Your task to perform on an android device: open app "Adobe Express: Graphic Design" (install if not already installed), go to login, and select forgot password Image 0: 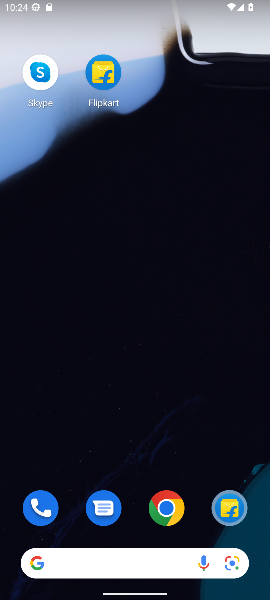
Step 0: drag from (151, 514) to (151, 174)
Your task to perform on an android device: open app "Adobe Express: Graphic Design" (install if not already installed), go to login, and select forgot password Image 1: 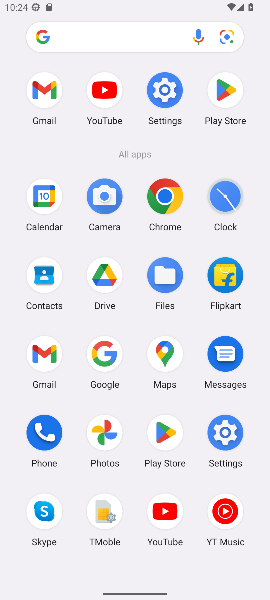
Step 1: click (166, 433)
Your task to perform on an android device: open app "Adobe Express: Graphic Design" (install if not already installed), go to login, and select forgot password Image 2: 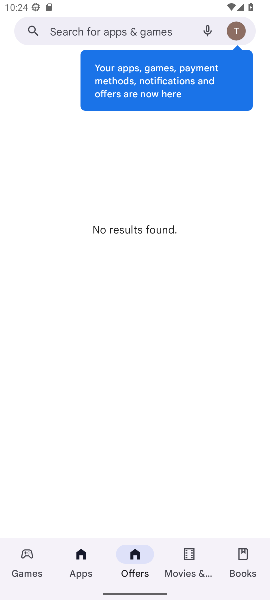
Step 2: click (108, 33)
Your task to perform on an android device: open app "Adobe Express: Graphic Design" (install if not already installed), go to login, and select forgot password Image 3: 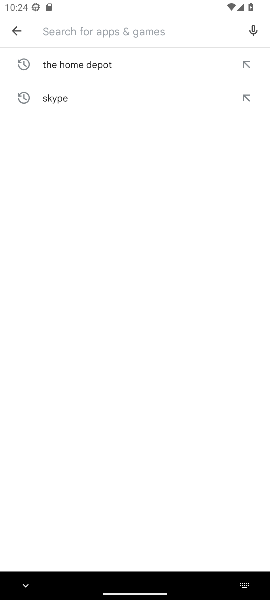
Step 3: type "Adobe Express: Graphic Design"
Your task to perform on an android device: open app "Adobe Express: Graphic Design" (install if not already installed), go to login, and select forgot password Image 4: 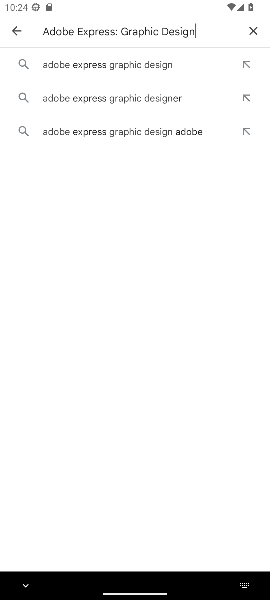
Step 4: click (94, 69)
Your task to perform on an android device: open app "Adobe Express: Graphic Design" (install if not already installed), go to login, and select forgot password Image 5: 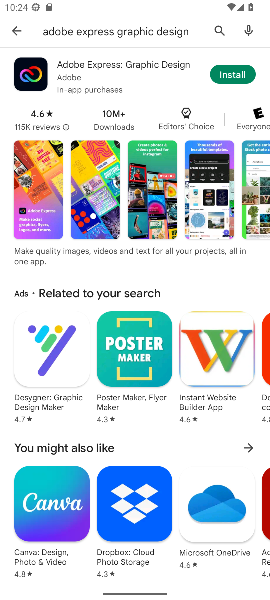
Step 5: click (224, 76)
Your task to perform on an android device: open app "Adobe Express: Graphic Design" (install if not already installed), go to login, and select forgot password Image 6: 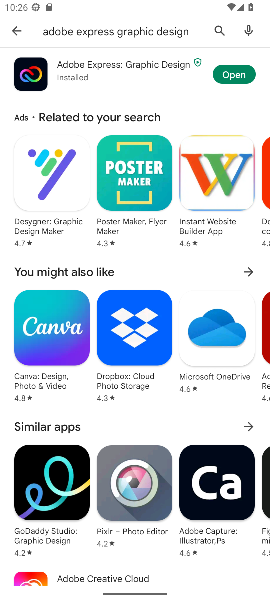
Step 6: click (234, 76)
Your task to perform on an android device: open app "Adobe Express: Graphic Design" (install if not already installed), go to login, and select forgot password Image 7: 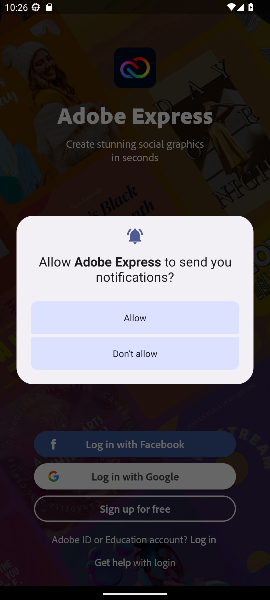
Step 7: task complete